Your task to perform on an android device: Open the calendar app, open the side menu, and click the "Day" option Image 0: 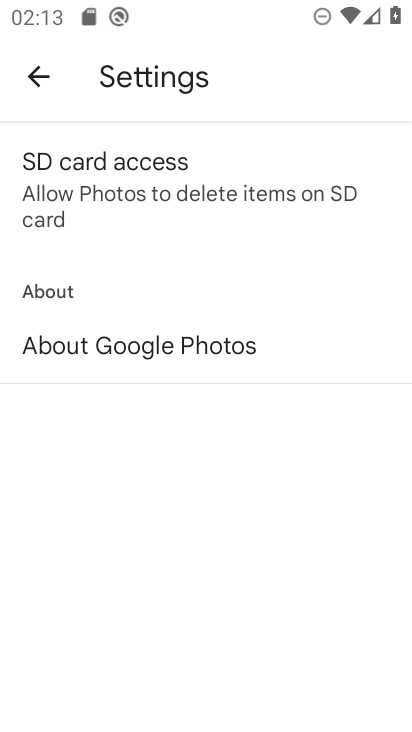
Step 0: press home button
Your task to perform on an android device: Open the calendar app, open the side menu, and click the "Day" option Image 1: 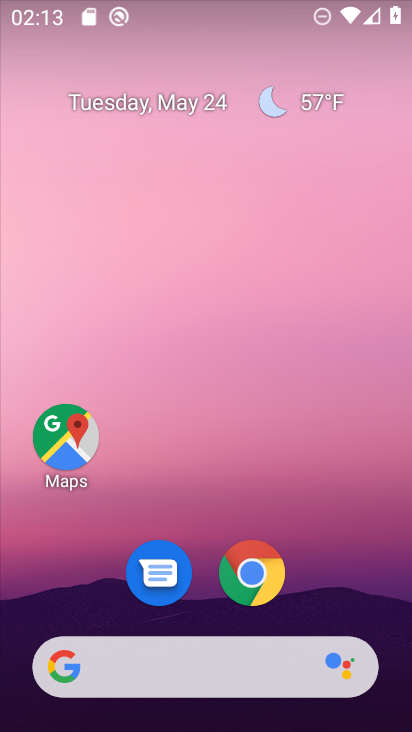
Step 1: drag from (325, 584) to (328, 209)
Your task to perform on an android device: Open the calendar app, open the side menu, and click the "Day" option Image 2: 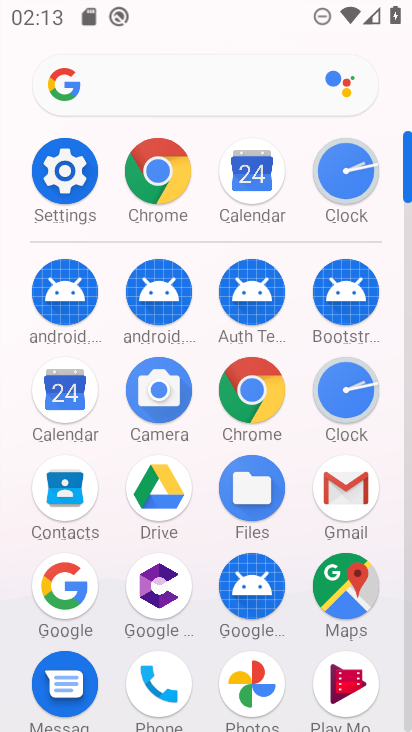
Step 2: click (66, 402)
Your task to perform on an android device: Open the calendar app, open the side menu, and click the "Day" option Image 3: 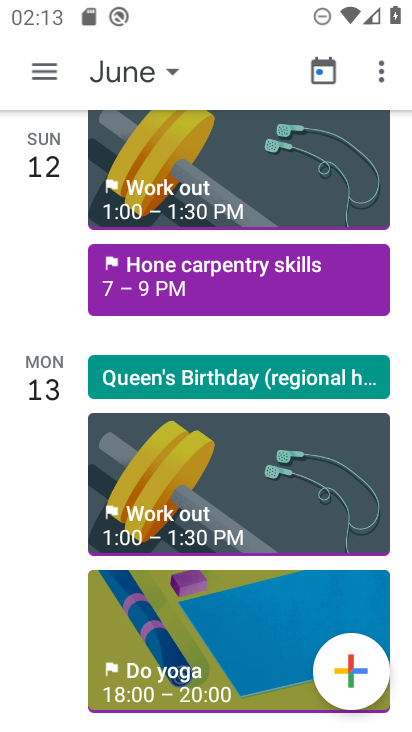
Step 3: click (42, 75)
Your task to perform on an android device: Open the calendar app, open the side menu, and click the "Day" option Image 4: 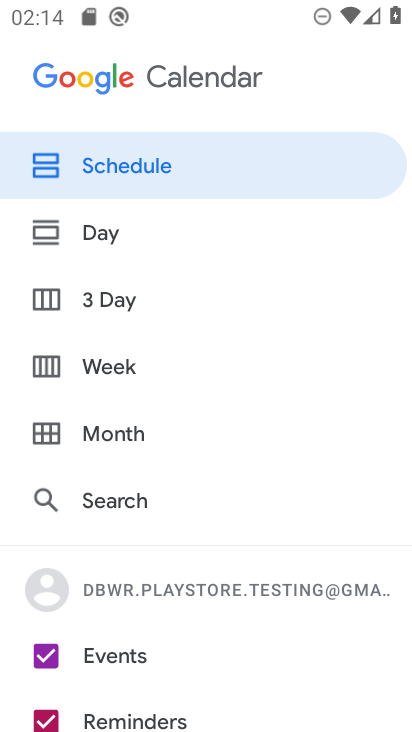
Step 4: click (83, 246)
Your task to perform on an android device: Open the calendar app, open the side menu, and click the "Day" option Image 5: 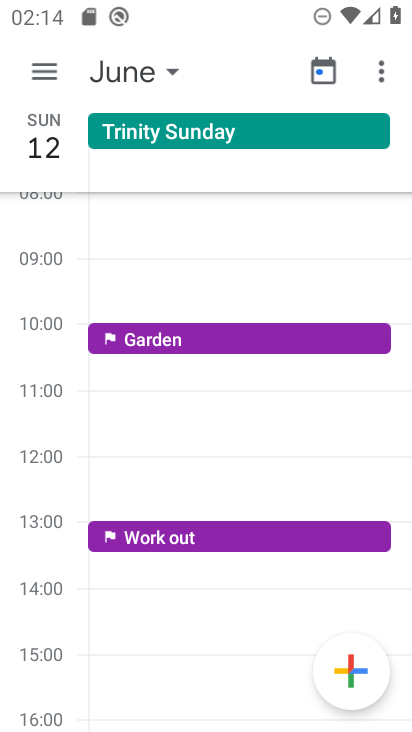
Step 5: click (60, 79)
Your task to perform on an android device: Open the calendar app, open the side menu, and click the "Day" option Image 6: 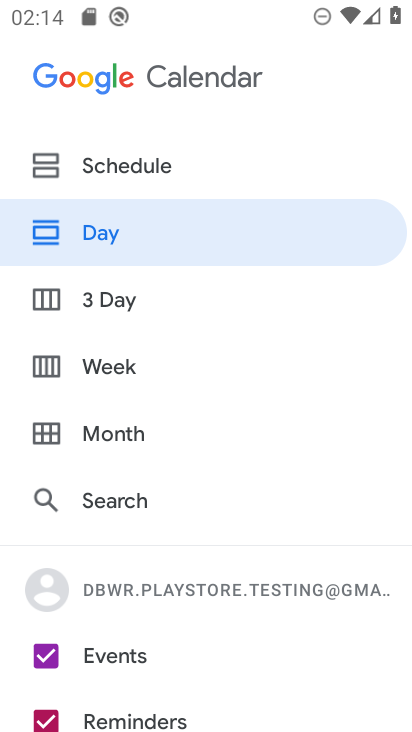
Step 6: task complete